Your task to perform on an android device: check storage Image 0: 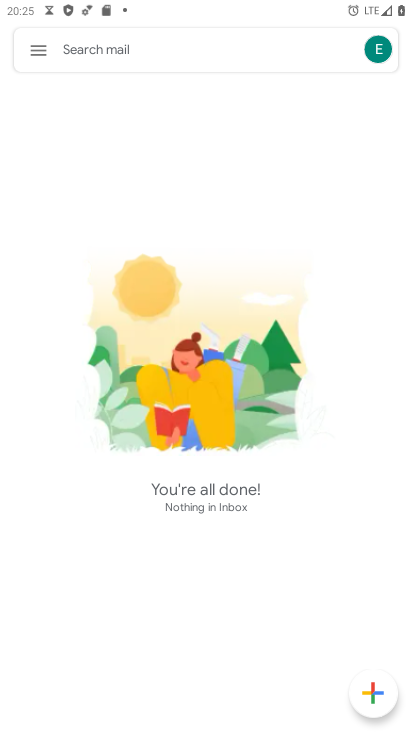
Step 0: drag from (194, 715) to (193, 431)
Your task to perform on an android device: check storage Image 1: 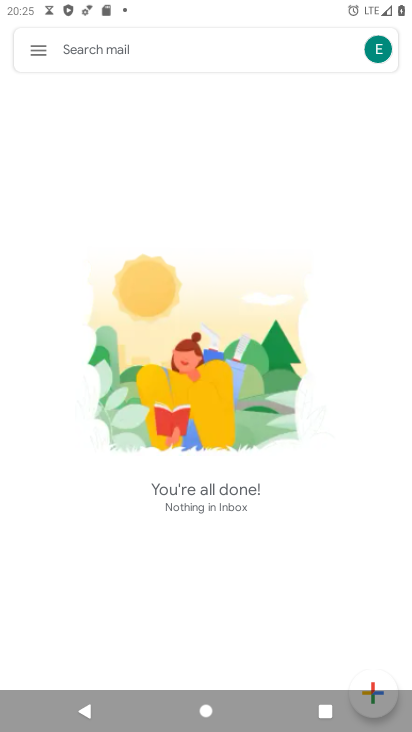
Step 1: press home button
Your task to perform on an android device: check storage Image 2: 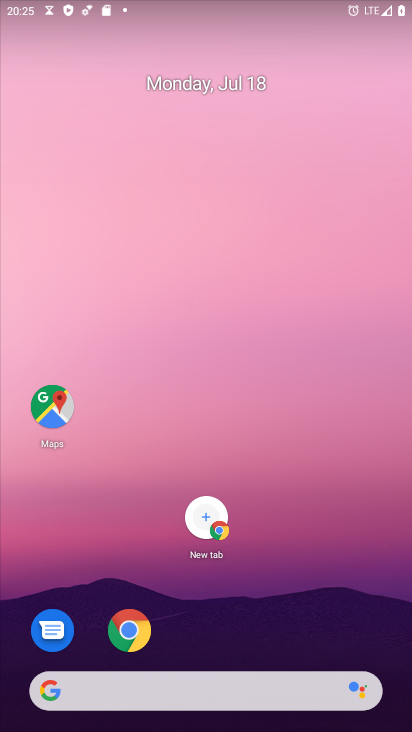
Step 2: drag from (209, 661) to (209, 318)
Your task to perform on an android device: check storage Image 3: 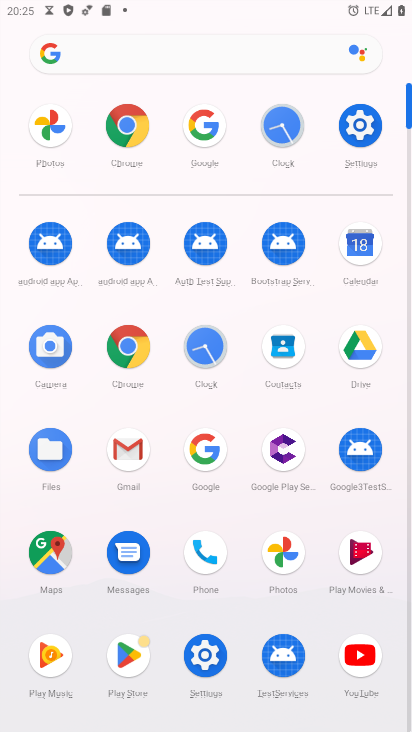
Step 3: click (369, 127)
Your task to perform on an android device: check storage Image 4: 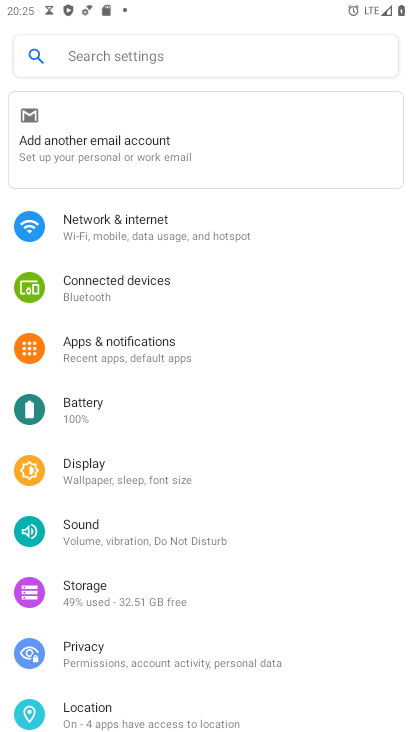
Step 4: click (100, 606)
Your task to perform on an android device: check storage Image 5: 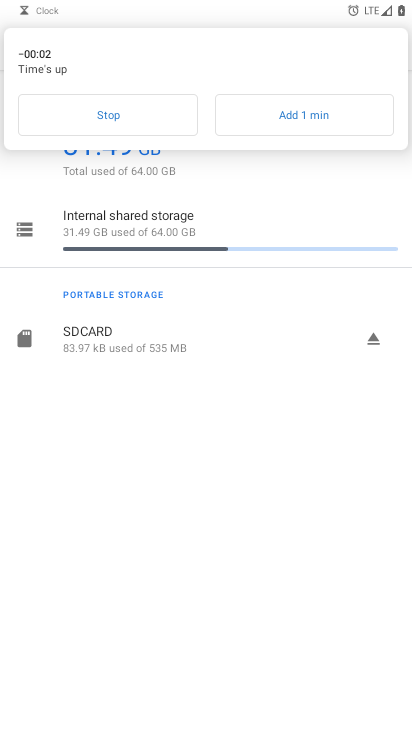
Step 5: click (141, 111)
Your task to perform on an android device: check storage Image 6: 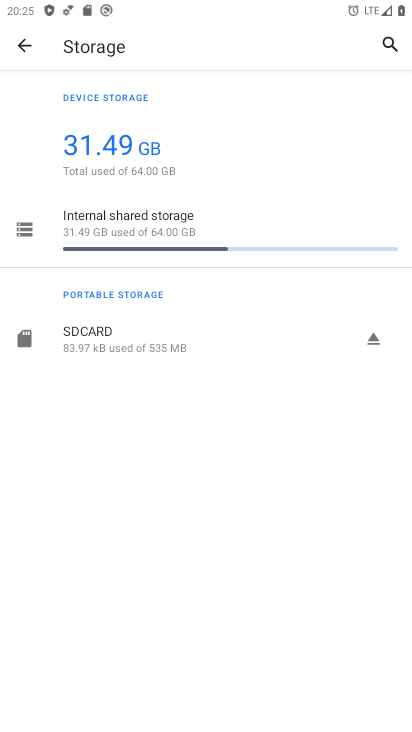
Step 6: task complete